Your task to perform on an android device: Open the phone app and click the voicemail tab. Image 0: 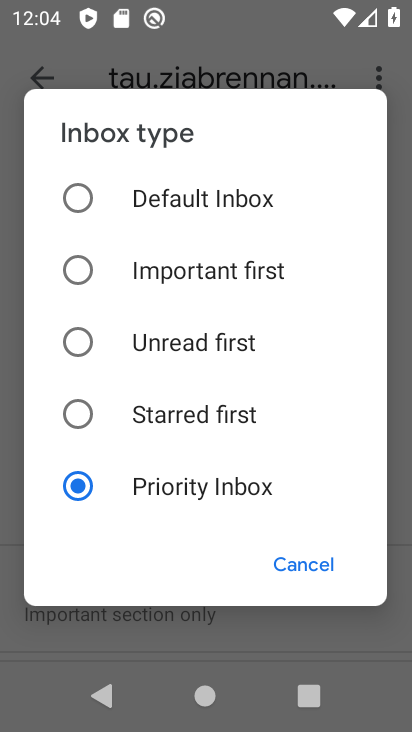
Step 0: press home button
Your task to perform on an android device: Open the phone app and click the voicemail tab. Image 1: 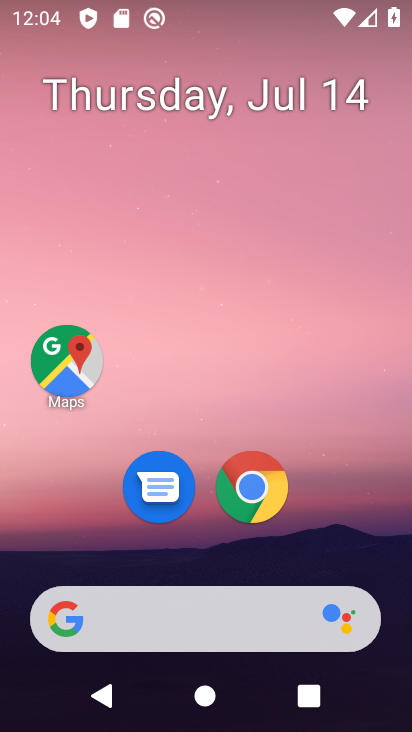
Step 1: drag from (174, 594) to (181, 123)
Your task to perform on an android device: Open the phone app and click the voicemail tab. Image 2: 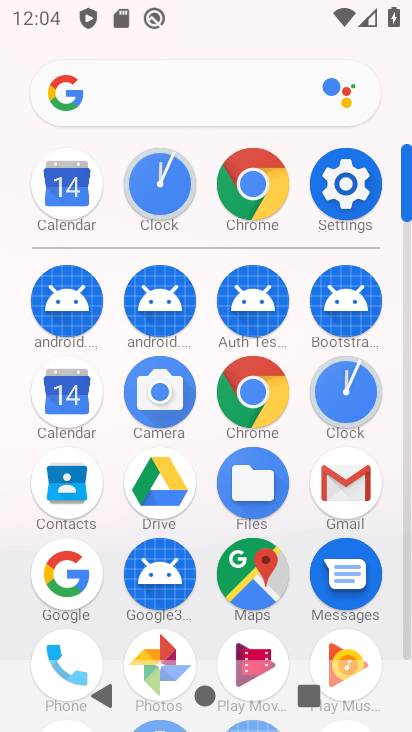
Step 2: drag from (143, 500) to (203, 164)
Your task to perform on an android device: Open the phone app and click the voicemail tab. Image 3: 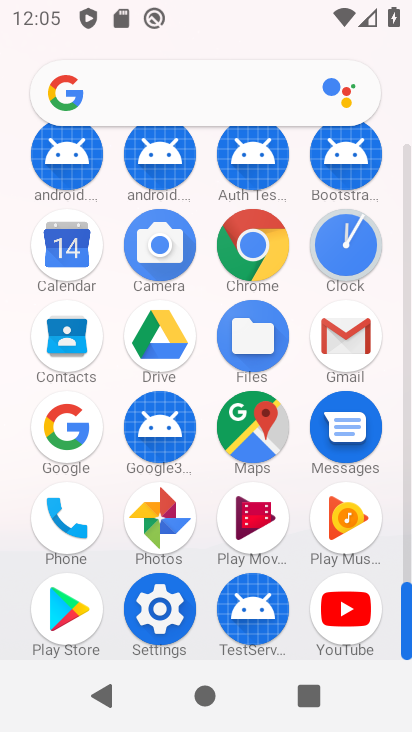
Step 3: click (57, 531)
Your task to perform on an android device: Open the phone app and click the voicemail tab. Image 4: 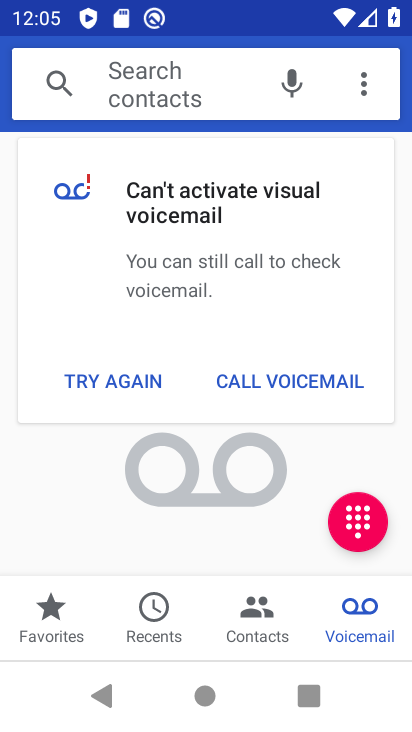
Step 4: task complete